Your task to perform on an android device: Is it going to rain this weekend? Image 0: 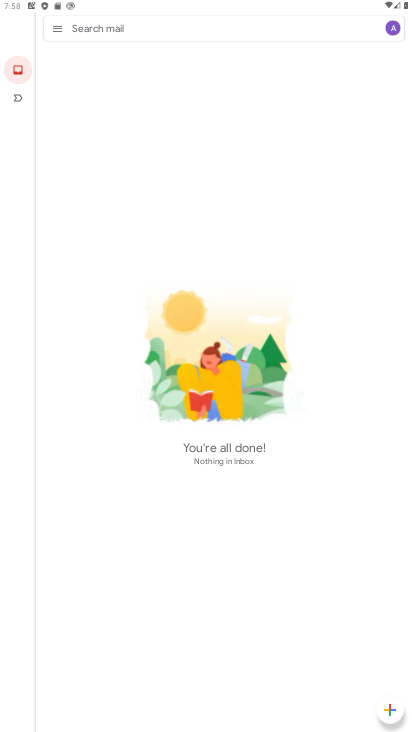
Step 0: press home button
Your task to perform on an android device: Is it going to rain this weekend? Image 1: 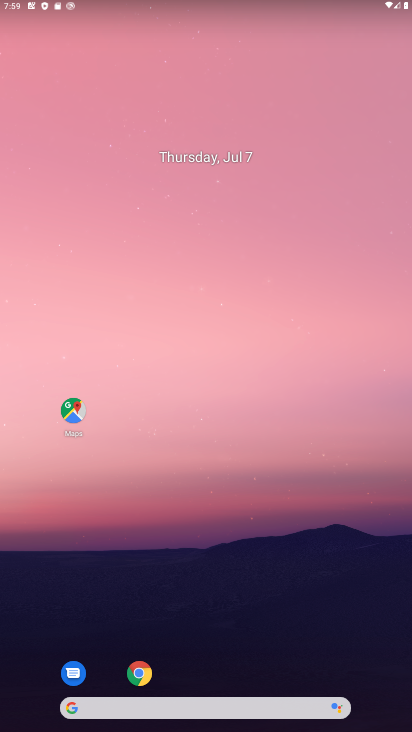
Step 1: click (141, 708)
Your task to perform on an android device: Is it going to rain this weekend? Image 2: 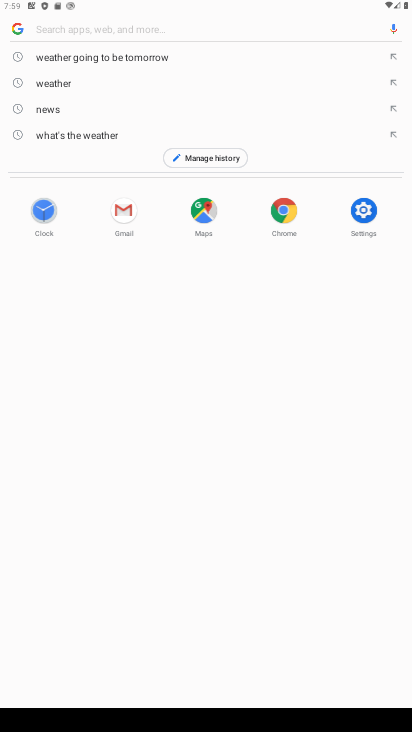
Step 2: type "Is it going to rain this weekend"
Your task to perform on an android device: Is it going to rain this weekend? Image 3: 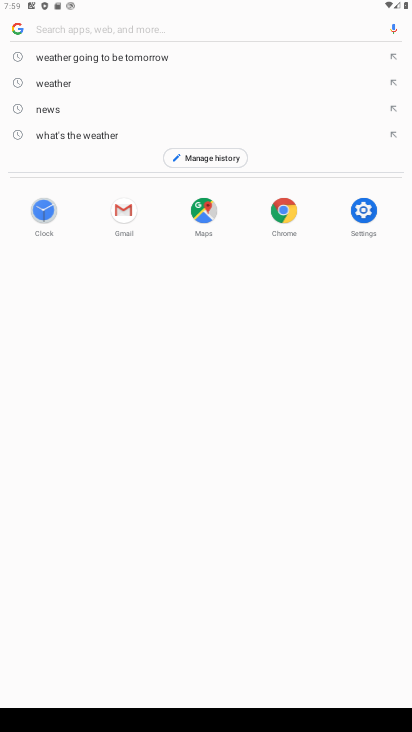
Step 3: click (62, 30)
Your task to perform on an android device: Is it going to rain this weekend? Image 4: 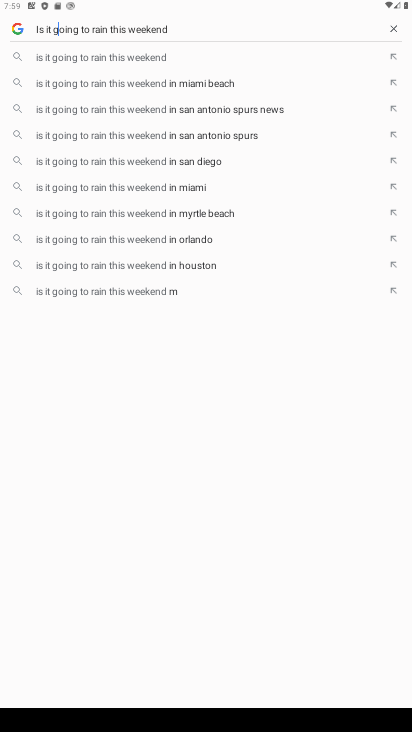
Step 4: press enter
Your task to perform on an android device: Is it going to rain this weekend? Image 5: 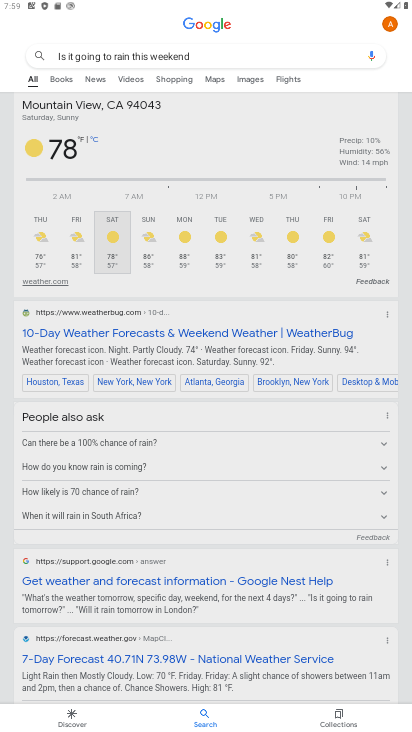
Step 5: task complete